Your task to perform on an android device: allow notifications from all sites in the chrome app Image 0: 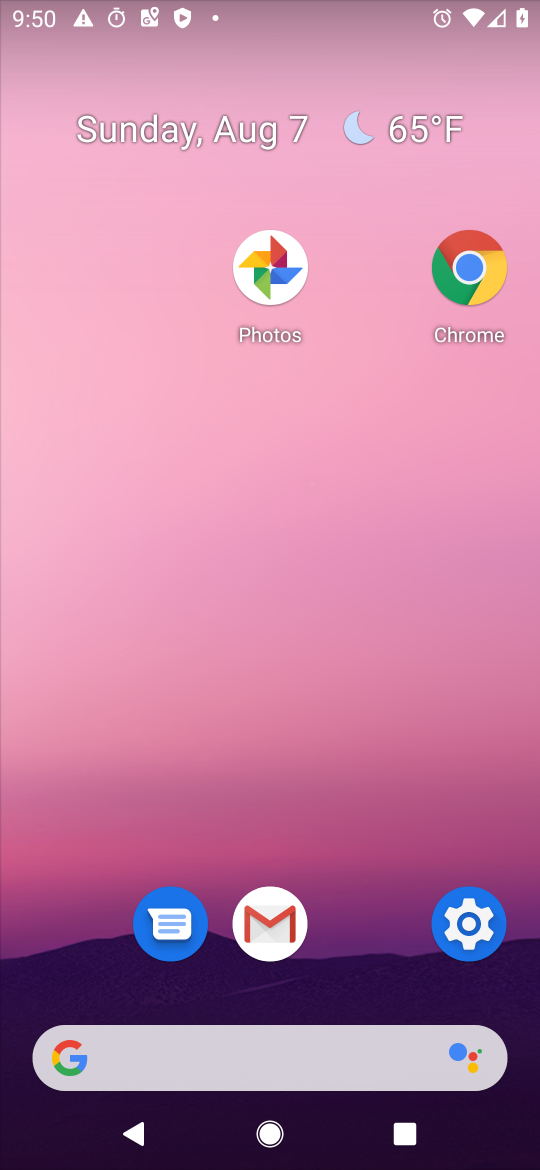
Step 0: click (470, 276)
Your task to perform on an android device: allow notifications from all sites in the chrome app Image 1: 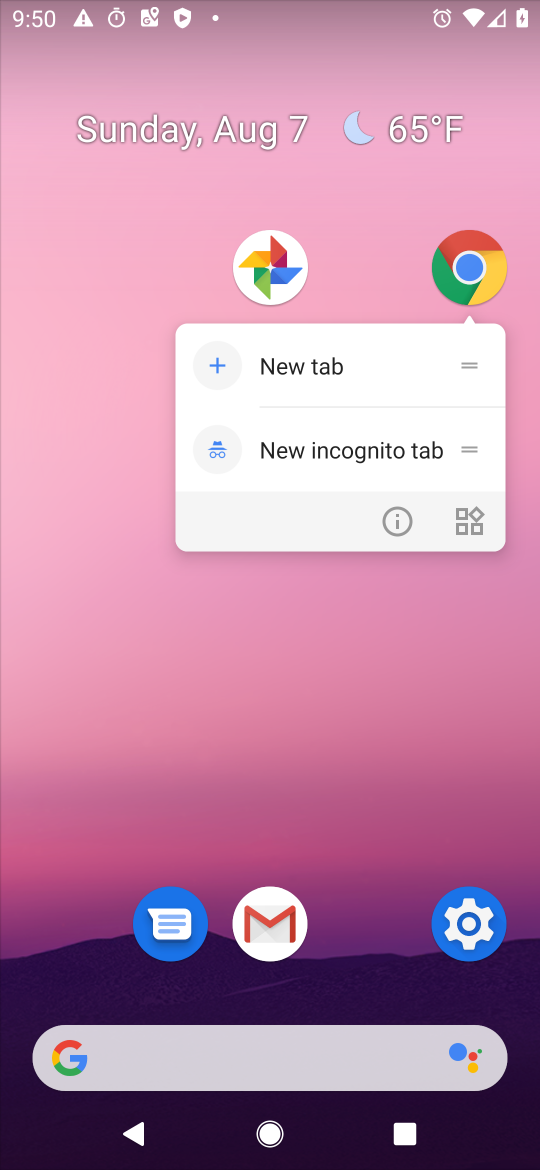
Step 1: click (458, 268)
Your task to perform on an android device: allow notifications from all sites in the chrome app Image 2: 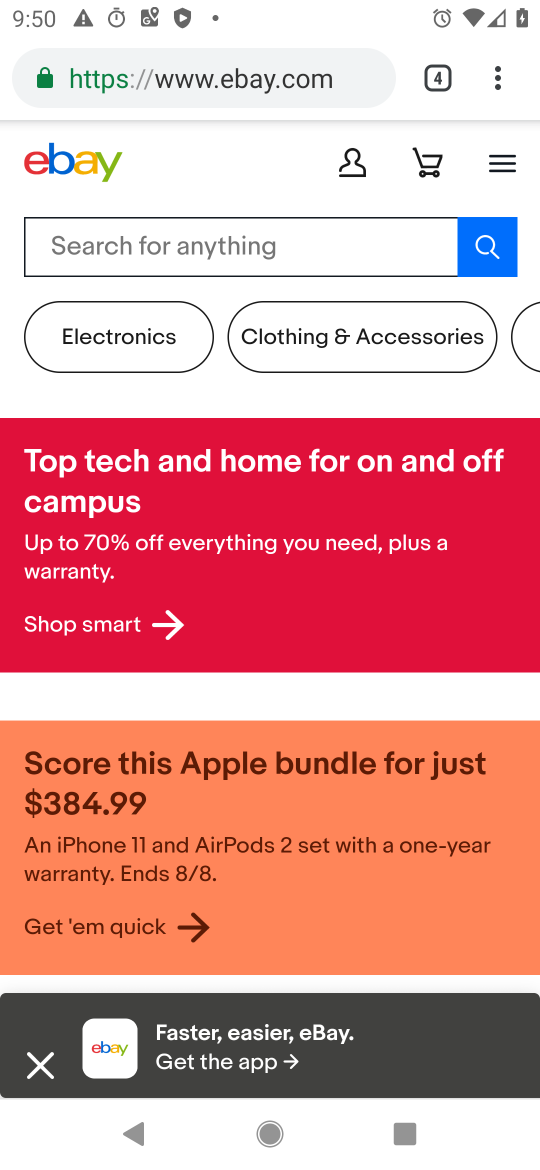
Step 2: click (496, 90)
Your task to perform on an android device: allow notifications from all sites in the chrome app Image 3: 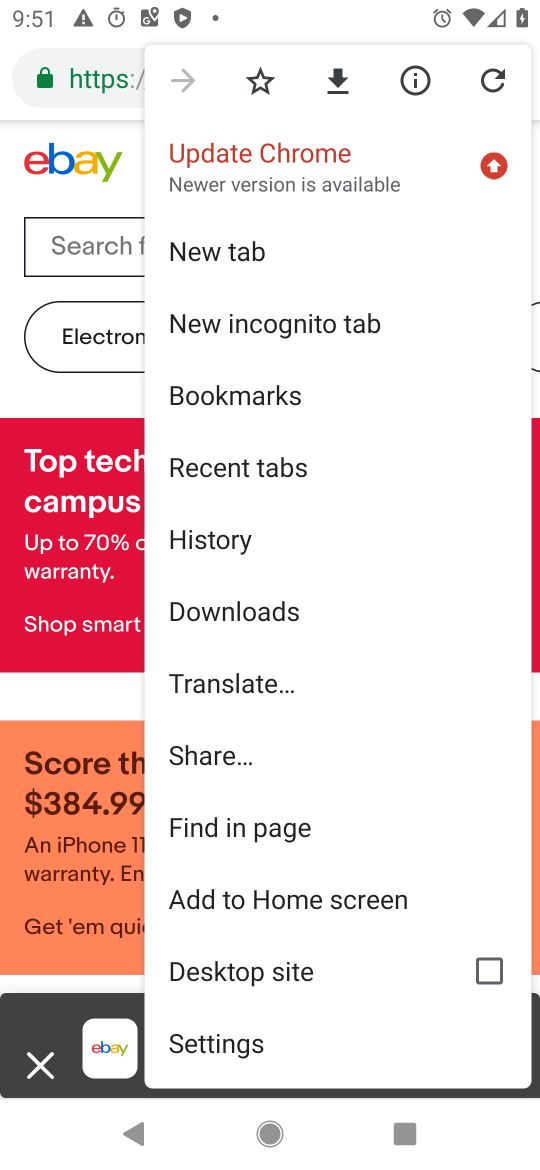
Step 3: click (223, 1038)
Your task to perform on an android device: allow notifications from all sites in the chrome app Image 4: 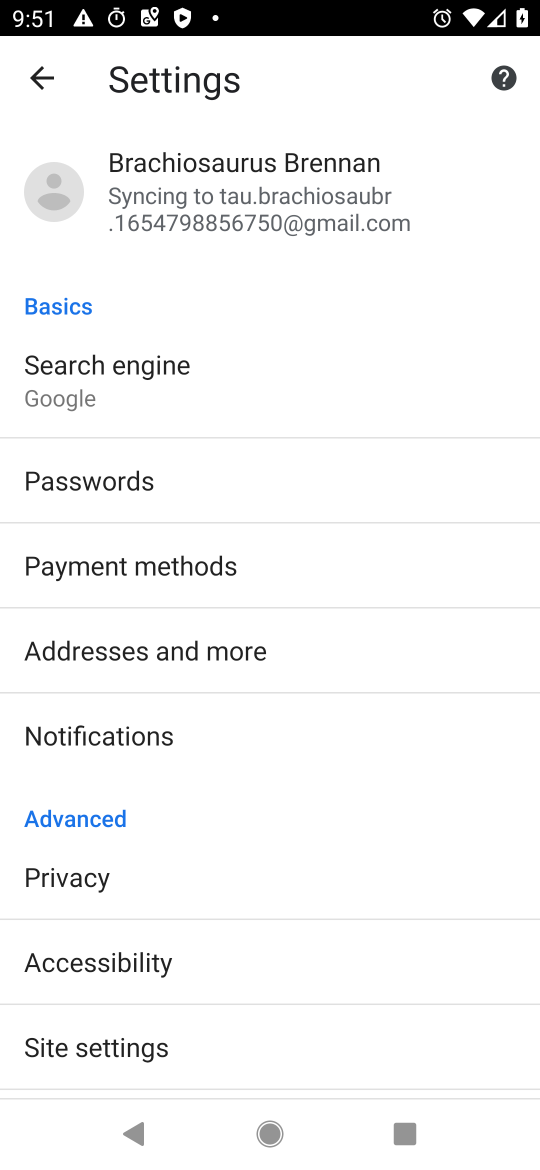
Step 4: click (118, 1055)
Your task to perform on an android device: allow notifications from all sites in the chrome app Image 5: 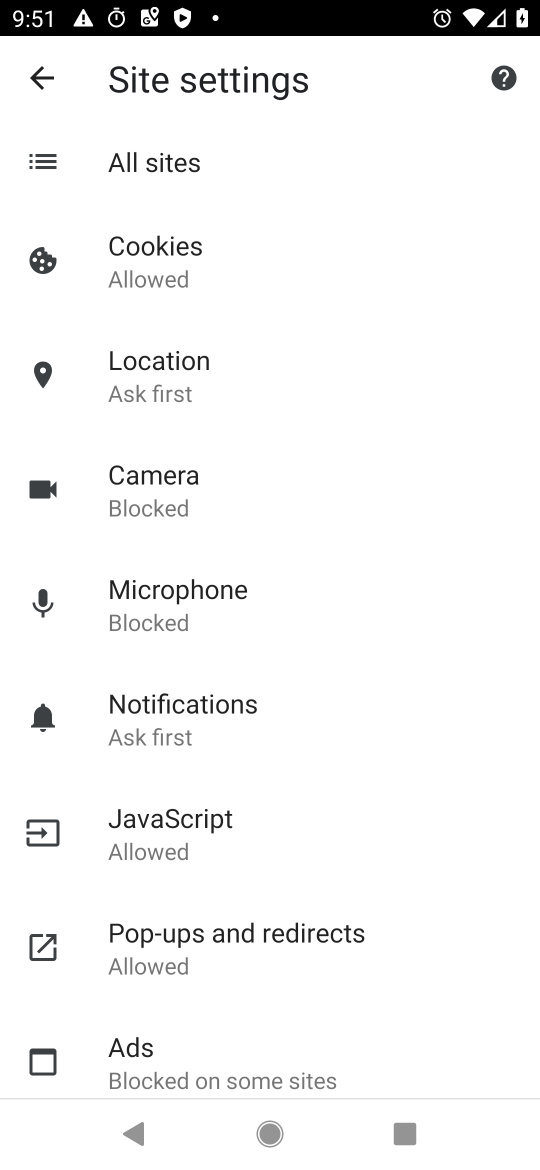
Step 5: click (187, 151)
Your task to perform on an android device: allow notifications from all sites in the chrome app Image 6: 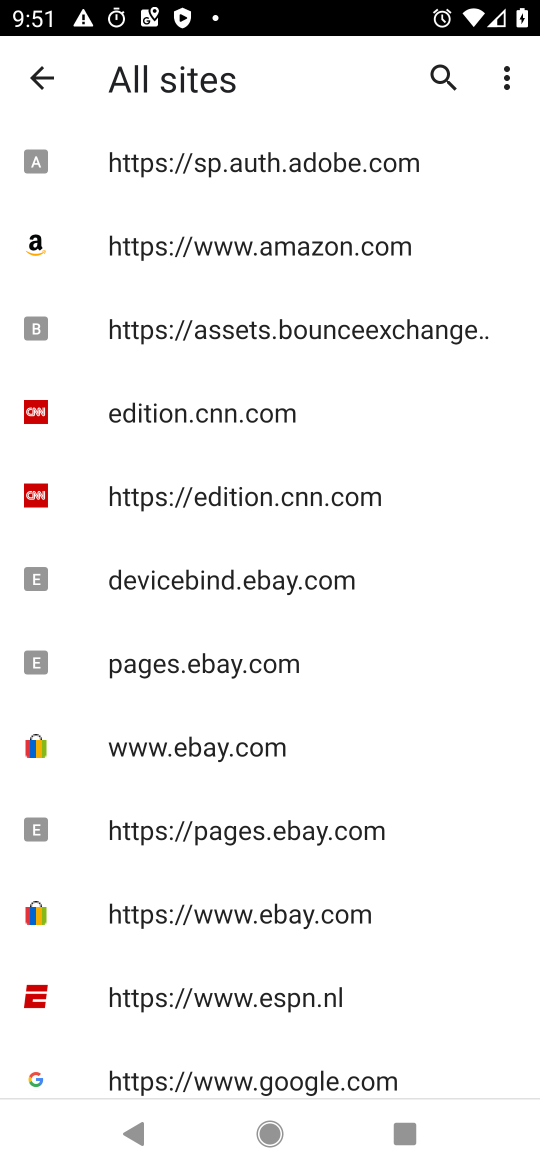
Step 6: task complete